Your task to perform on an android device: visit the assistant section in the google photos Image 0: 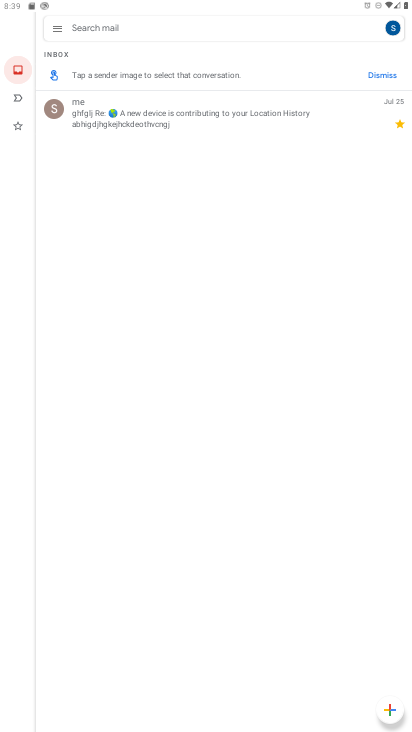
Step 0: press home button
Your task to perform on an android device: visit the assistant section in the google photos Image 1: 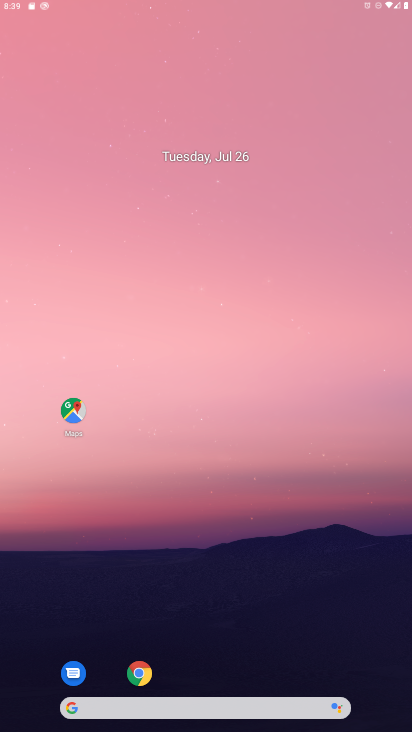
Step 1: drag from (397, 682) to (160, 13)
Your task to perform on an android device: visit the assistant section in the google photos Image 2: 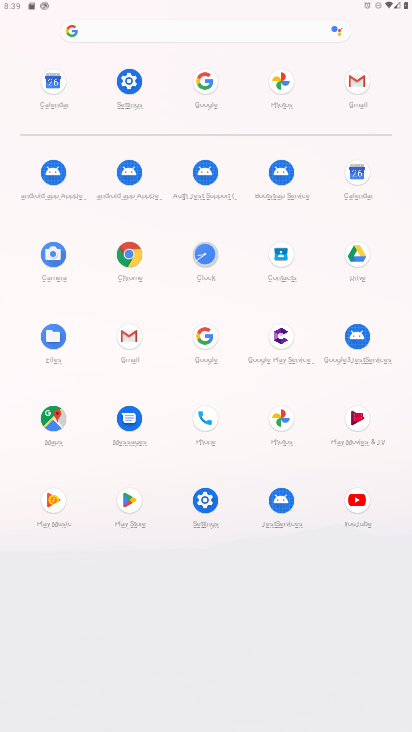
Step 2: click (287, 427)
Your task to perform on an android device: visit the assistant section in the google photos Image 3: 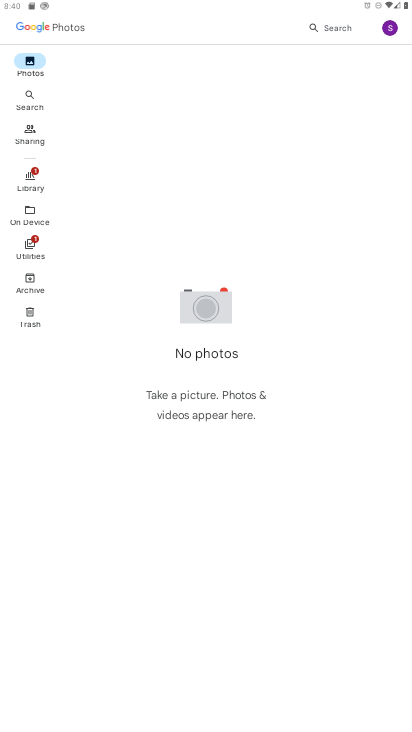
Step 3: task complete